Your task to perform on an android device: Find coffee shops on Maps Image 0: 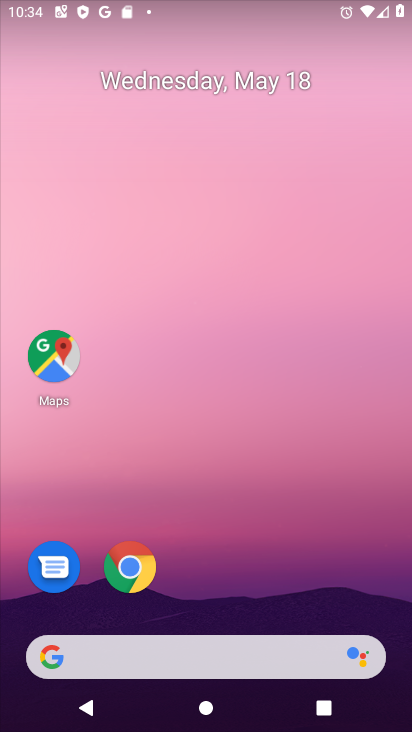
Step 0: click (46, 368)
Your task to perform on an android device: Find coffee shops on Maps Image 1: 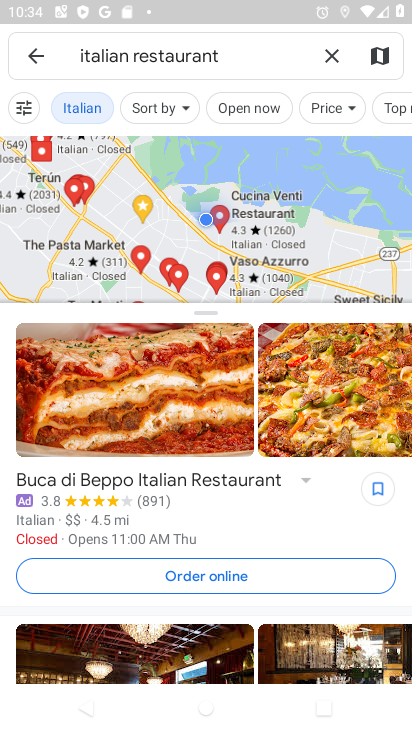
Step 1: click (333, 58)
Your task to perform on an android device: Find coffee shops on Maps Image 2: 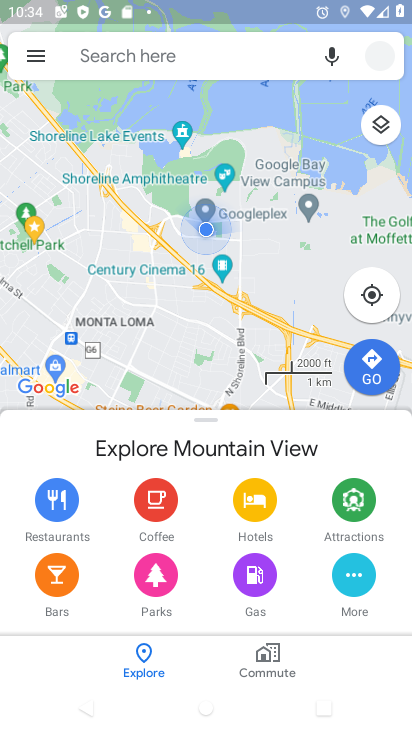
Step 2: click (204, 72)
Your task to perform on an android device: Find coffee shops on Maps Image 3: 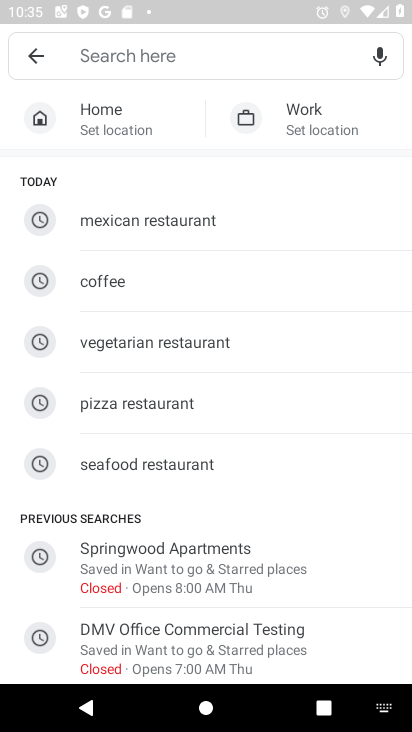
Step 3: type "coffee shops"
Your task to perform on an android device: Find coffee shops on Maps Image 4: 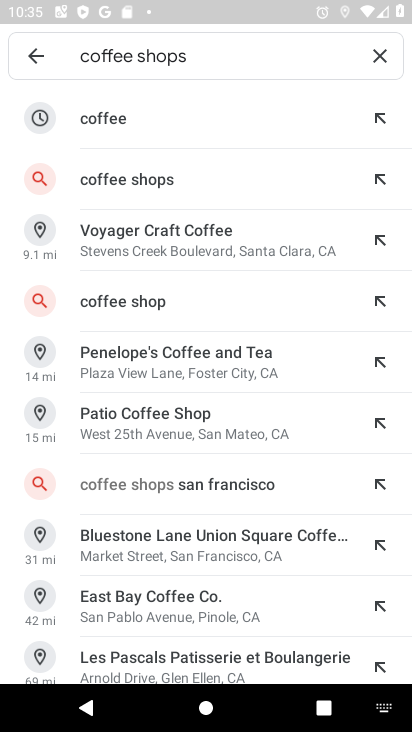
Step 4: click (192, 175)
Your task to perform on an android device: Find coffee shops on Maps Image 5: 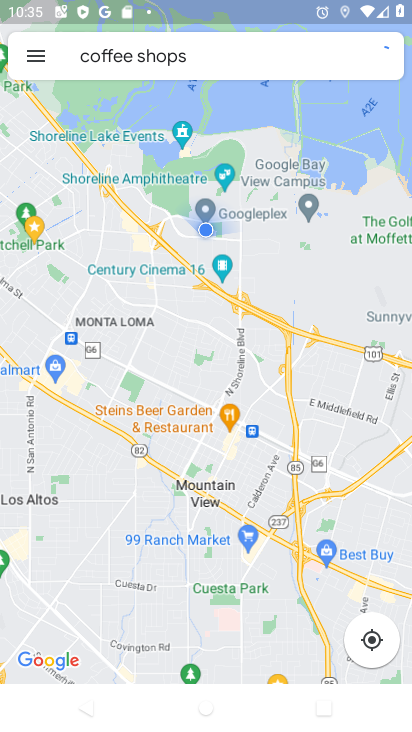
Step 5: task complete